Your task to perform on an android device: Set the phone to "Do not disturb". Image 0: 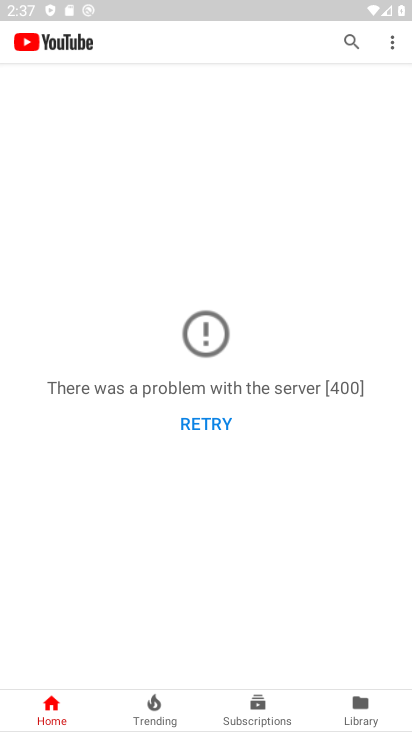
Step 0: press back button
Your task to perform on an android device: Set the phone to "Do not disturb". Image 1: 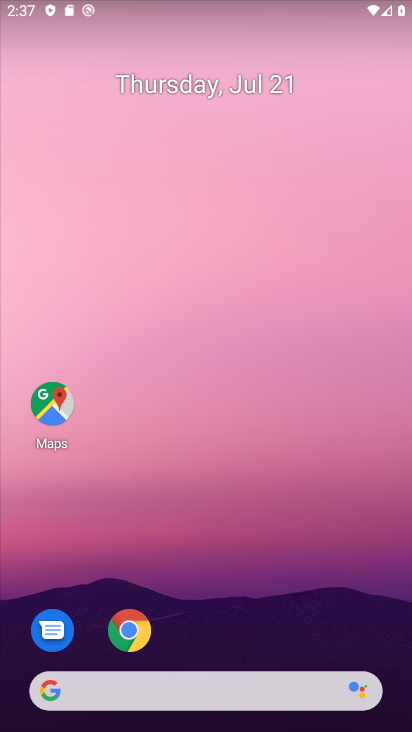
Step 1: drag from (173, 12) to (173, 678)
Your task to perform on an android device: Set the phone to "Do not disturb". Image 2: 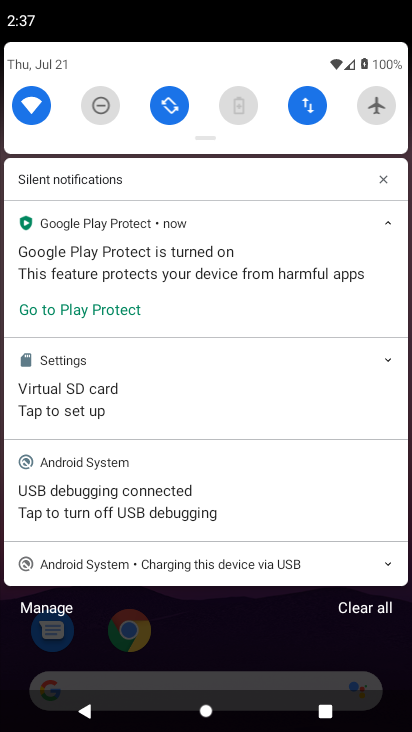
Step 2: click (99, 105)
Your task to perform on an android device: Set the phone to "Do not disturb". Image 3: 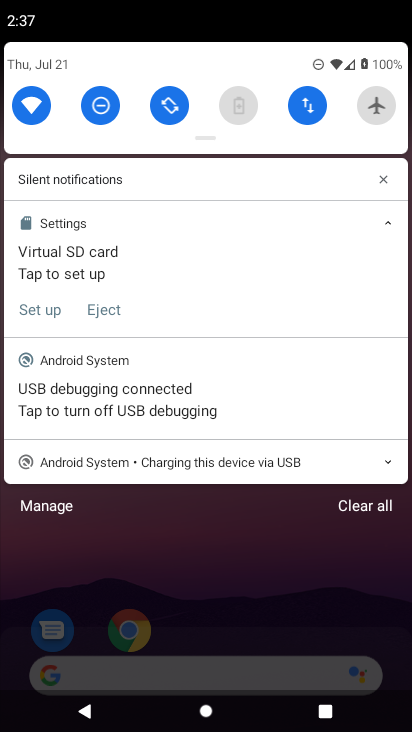
Step 3: task complete